Your task to perform on an android device: turn off data saver in the chrome app Image 0: 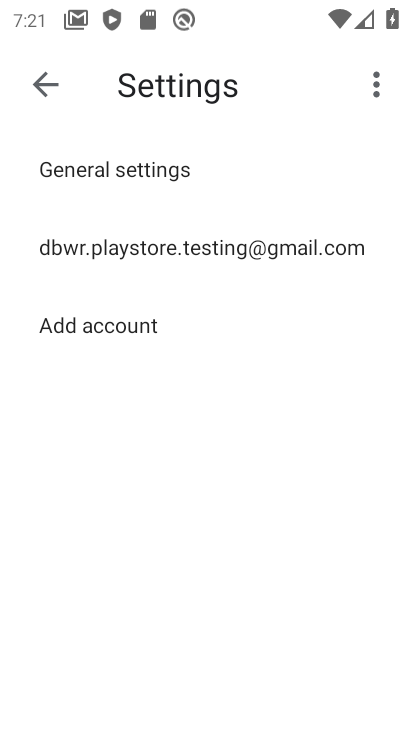
Step 0: press home button
Your task to perform on an android device: turn off data saver in the chrome app Image 1: 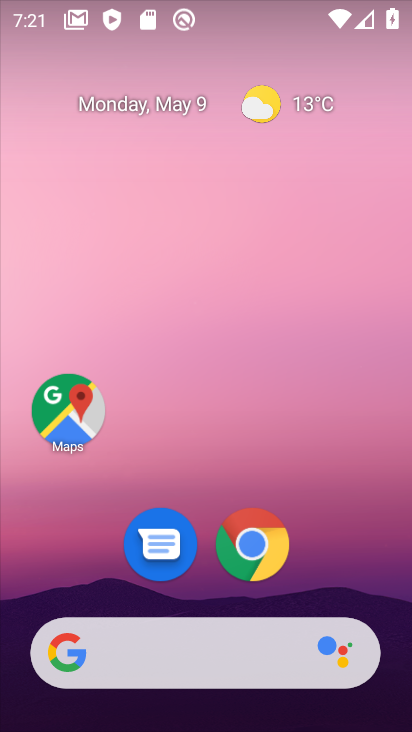
Step 1: drag from (357, 435) to (400, 4)
Your task to perform on an android device: turn off data saver in the chrome app Image 2: 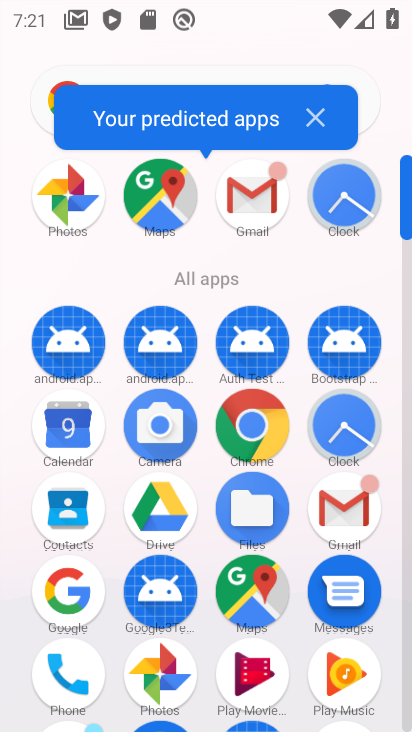
Step 2: click (263, 424)
Your task to perform on an android device: turn off data saver in the chrome app Image 3: 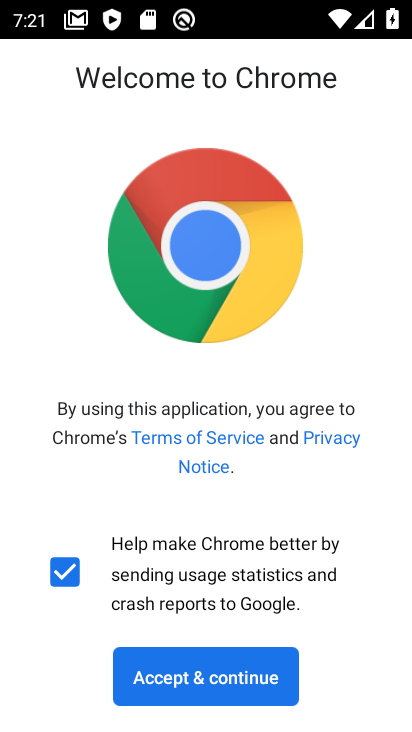
Step 3: click (211, 673)
Your task to perform on an android device: turn off data saver in the chrome app Image 4: 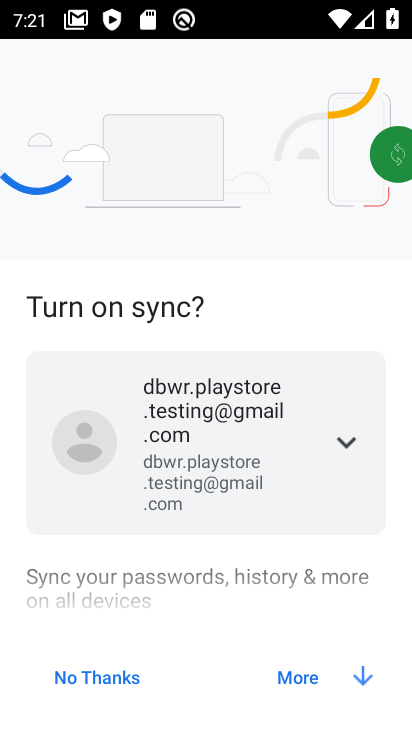
Step 4: click (299, 670)
Your task to perform on an android device: turn off data saver in the chrome app Image 5: 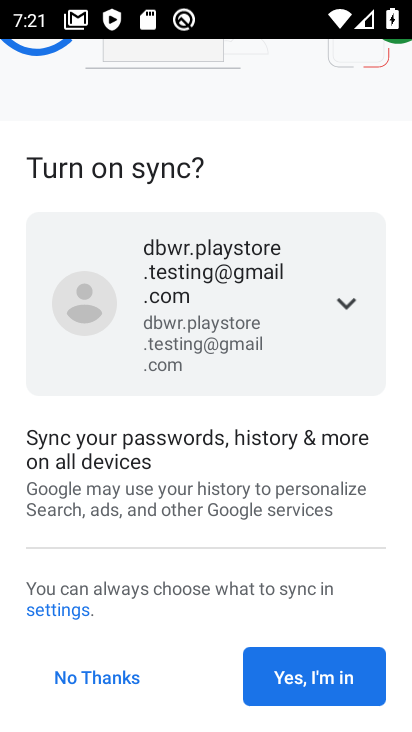
Step 5: click (299, 670)
Your task to perform on an android device: turn off data saver in the chrome app Image 6: 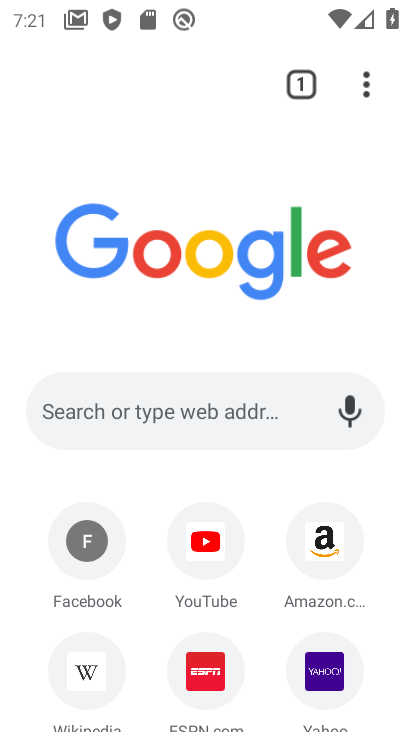
Step 6: drag from (363, 78) to (98, 570)
Your task to perform on an android device: turn off data saver in the chrome app Image 7: 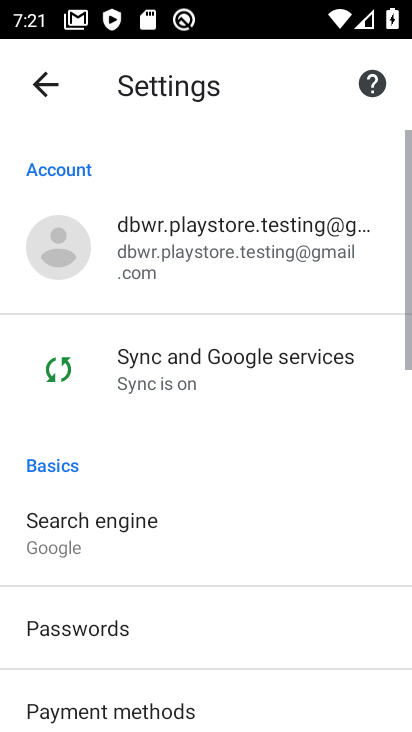
Step 7: drag from (148, 623) to (194, 255)
Your task to perform on an android device: turn off data saver in the chrome app Image 8: 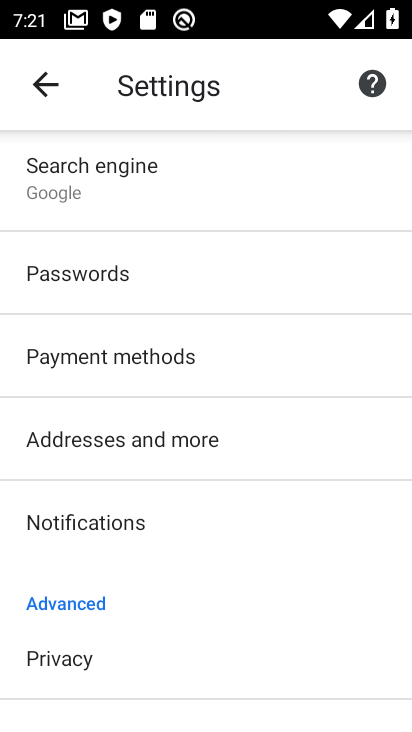
Step 8: drag from (175, 630) to (253, 177)
Your task to perform on an android device: turn off data saver in the chrome app Image 9: 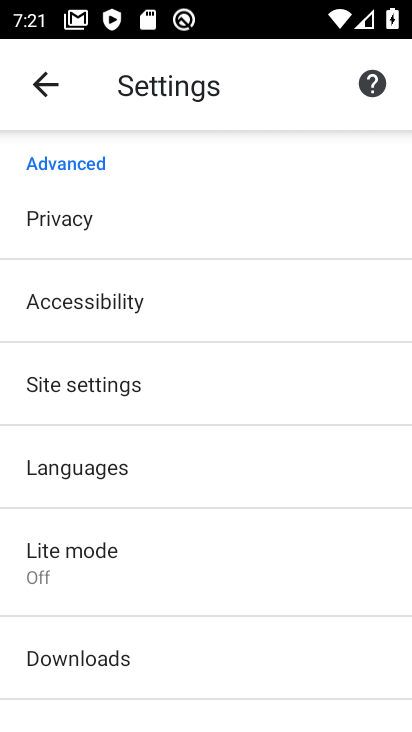
Step 9: click (104, 553)
Your task to perform on an android device: turn off data saver in the chrome app Image 10: 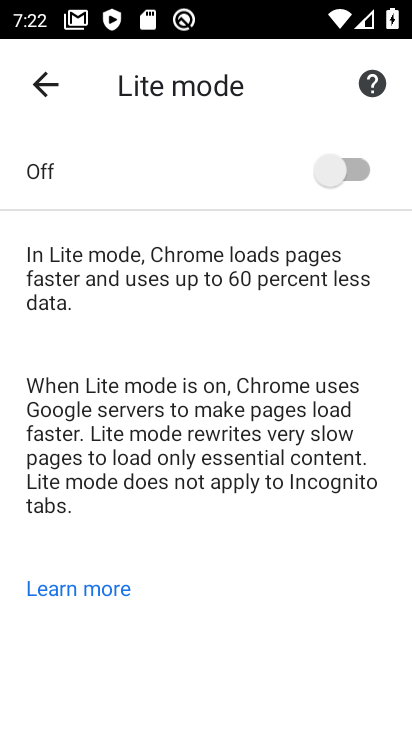
Step 10: task complete